Your task to perform on an android device: check android version Image 0: 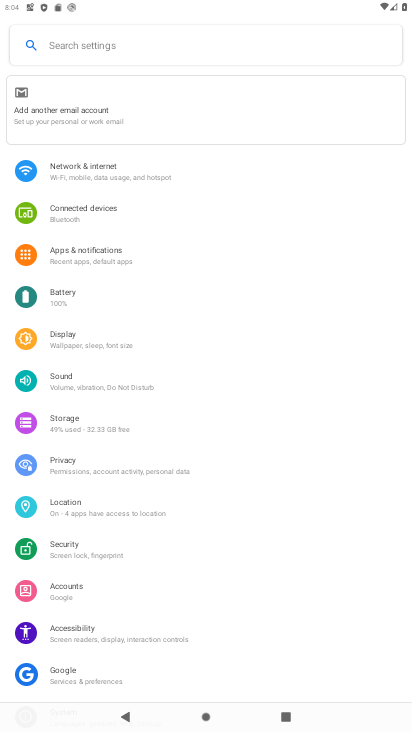
Step 0: press home button
Your task to perform on an android device: check android version Image 1: 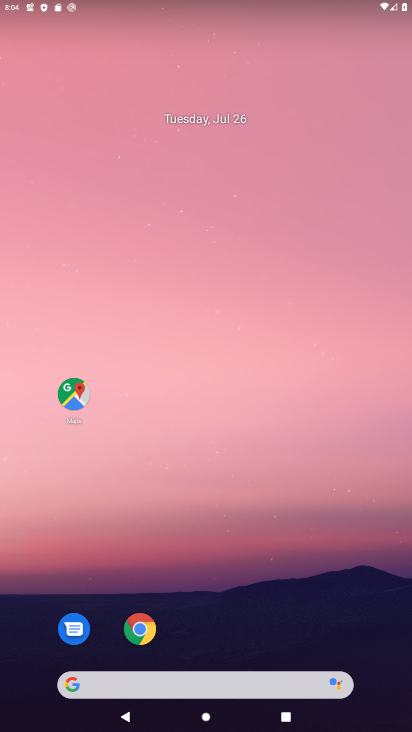
Step 1: drag from (187, 634) to (176, 43)
Your task to perform on an android device: check android version Image 2: 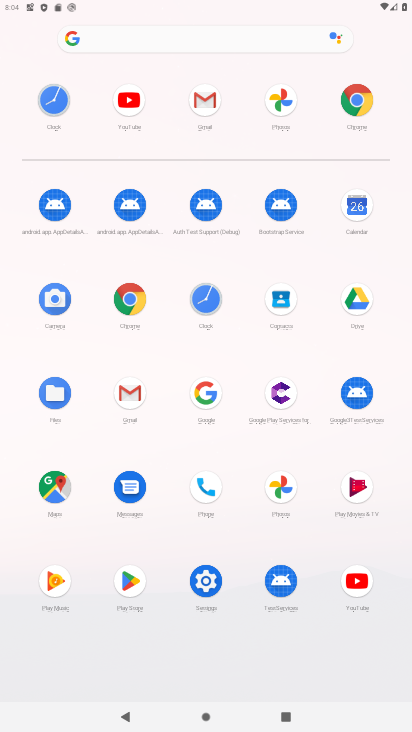
Step 2: click (207, 581)
Your task to perform on an android device: check android version Image 3: 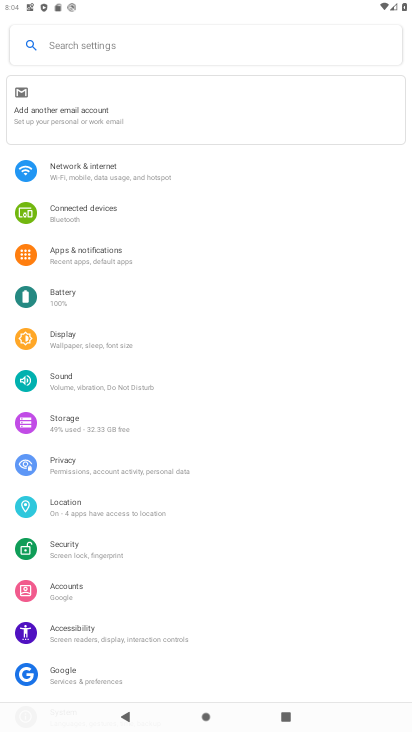
Step 3: drag from (129, 654) to (162, 83)
Your task to perform on an android device: check android version Image 4: 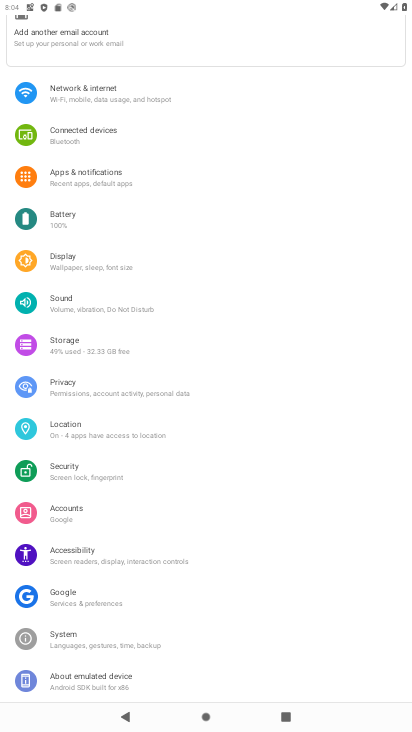
Step 4: click (103, 686)
Your task to perform on an android device: check android version Image 5: 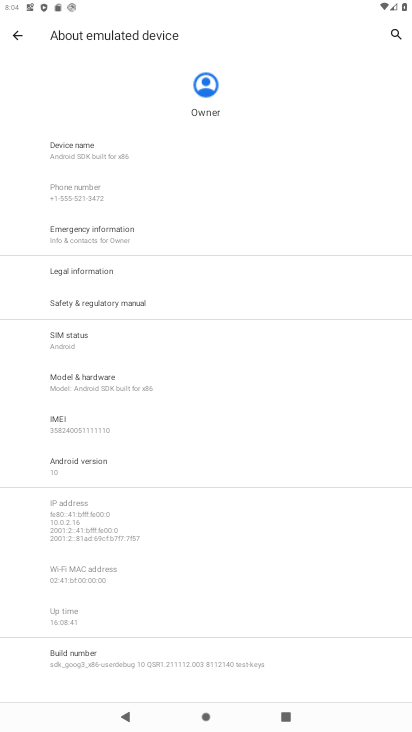
Step 5: click (85, 467)
Your task to perform on an android device: check android version Image 6: 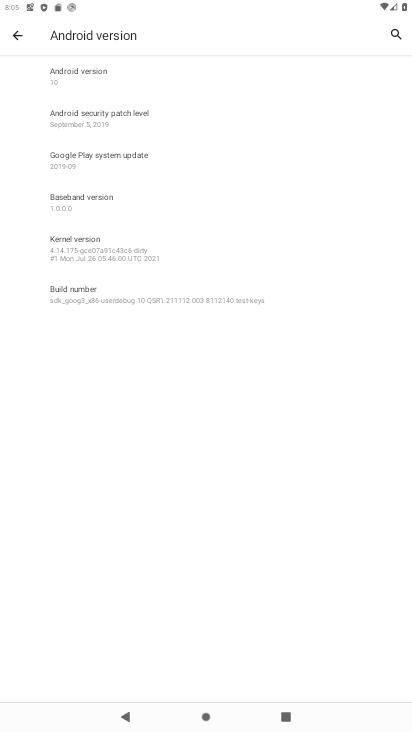
Step 6: task complete